Your task to perform on an android device: delete browsing data in the chrome app Image 0: 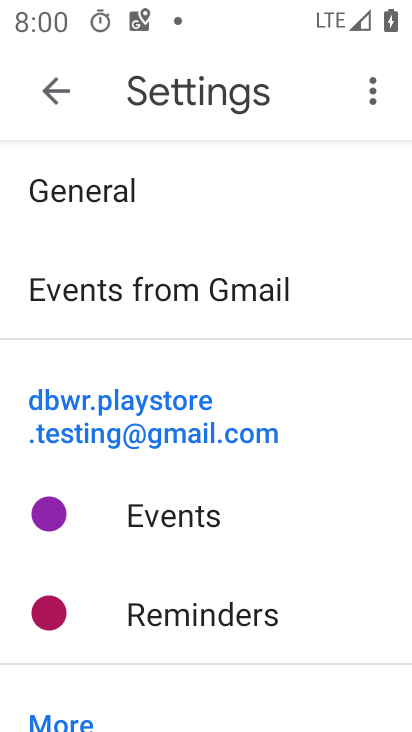
Step 0: press home button
Your task to perform on an android device: delete browsing data in the chrome app Image 1: 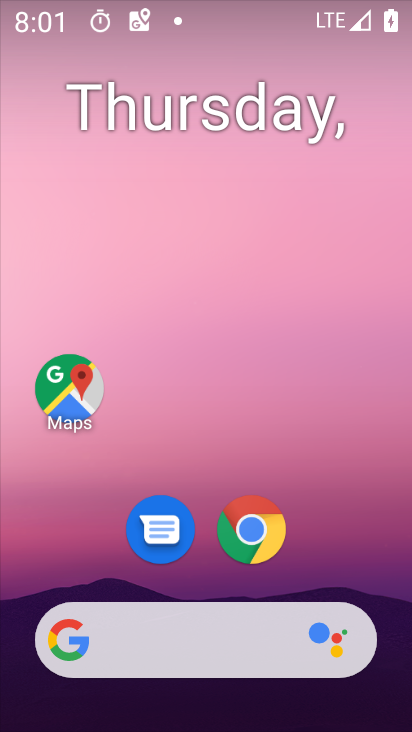
Step 1: drag from (380, 583) to (398, 198)
Your task to perform on an android device: delete browsing data in the chrome app Image 2: 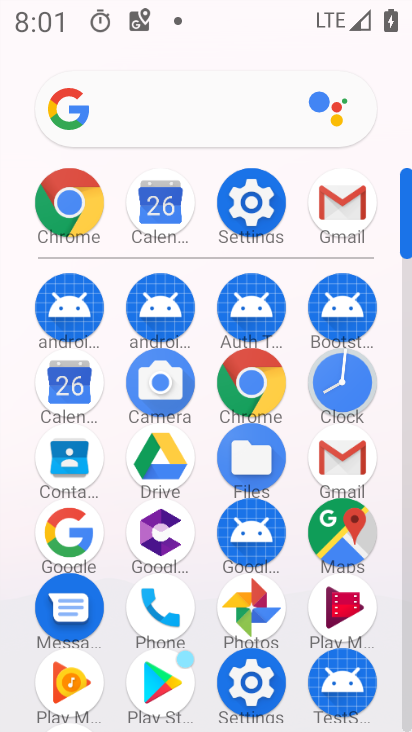
Step 2: click (268, 391)
Your task to perform on an android device: delete browsing data in the chrome app Image 3: 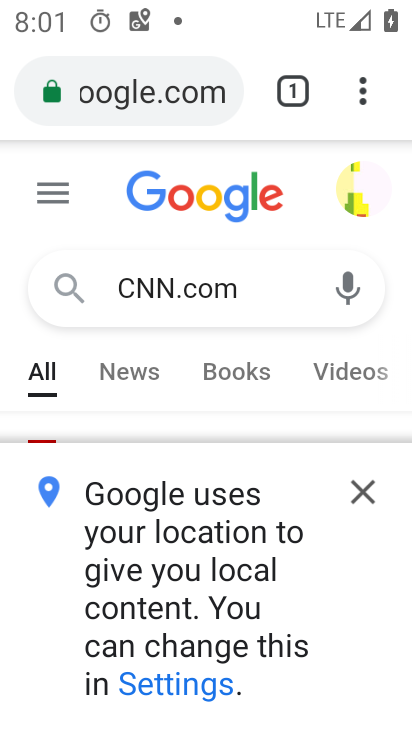
Step 3: click (362, 102)
Your task to perform on an android device: delete browsing data in the chrome app Image 4: 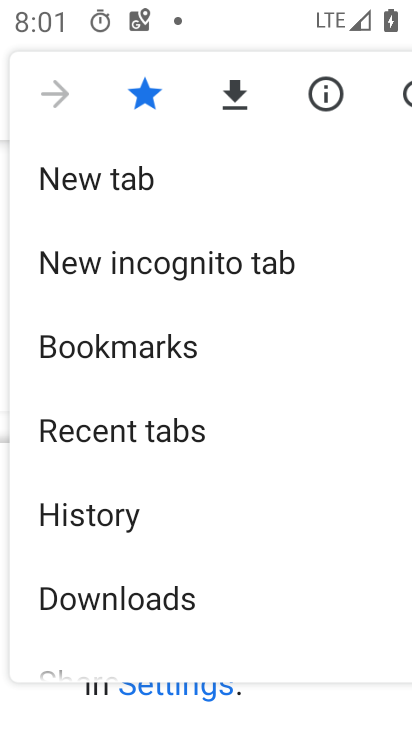
Step 4: drag from (358, 454) to (358, 358)
Your task to perform on an android device: delete browsing data in the chrome app Image 5: 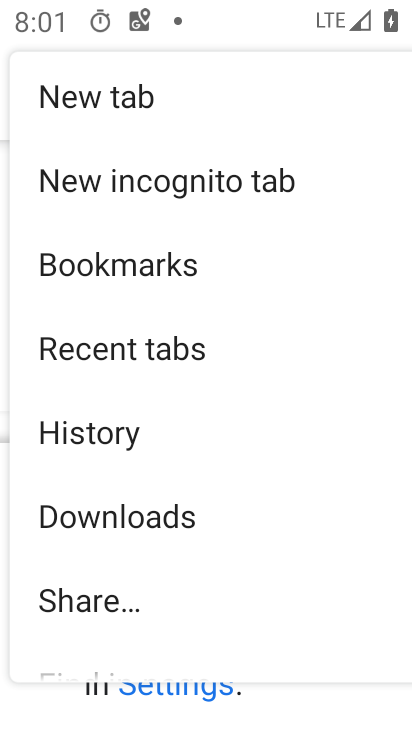
Step 5: drag from (350, 456) to (350, 333)
Your task to perform on an android device: delete browsing data in the chrome app Image 6: 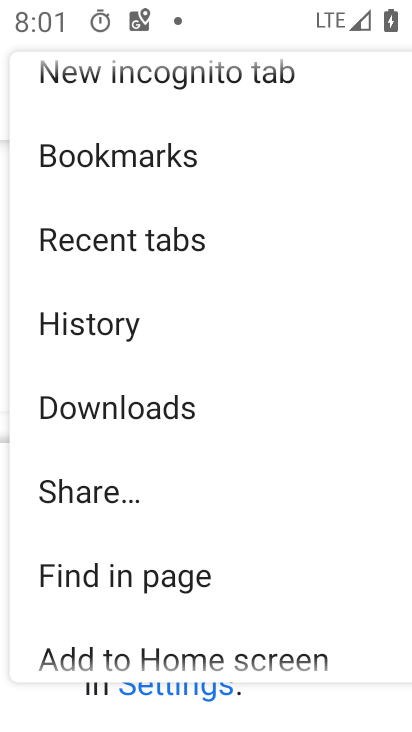
Step 6: drag from (348, 467) to (346, 328)
Your task to perform on an android device: delete browsing data in the chrome app Image 7: 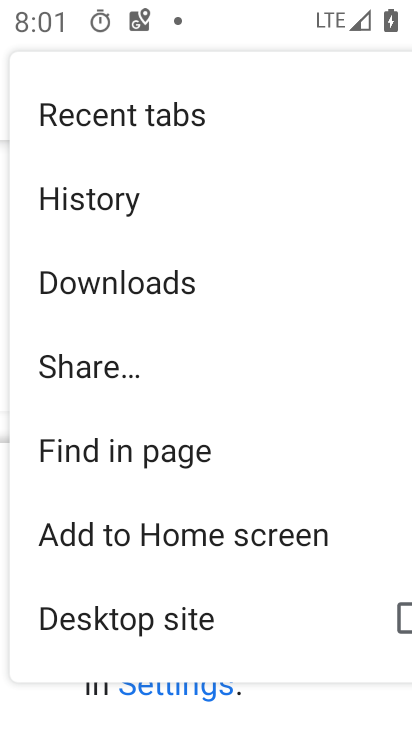
Step 7: drag from (330, 500) to (344, 354)
Your task to perform on an android device: delete browsing data in the chrome app Image 8: 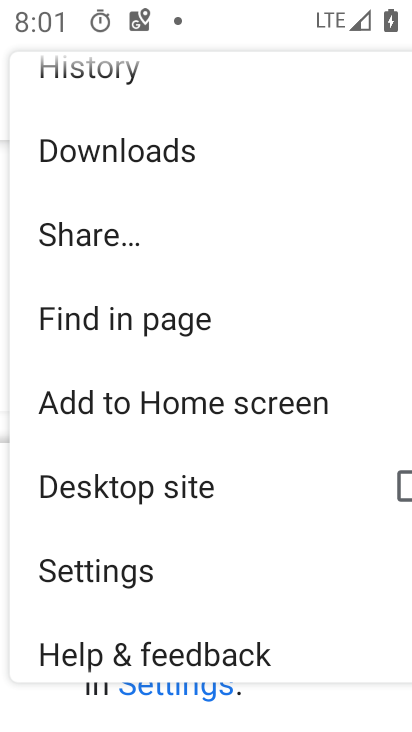
Step 8: drag from (313, 524) to (321, 299)
Your task to perform on an android device: delete browsing data in the chrome app Image 9: 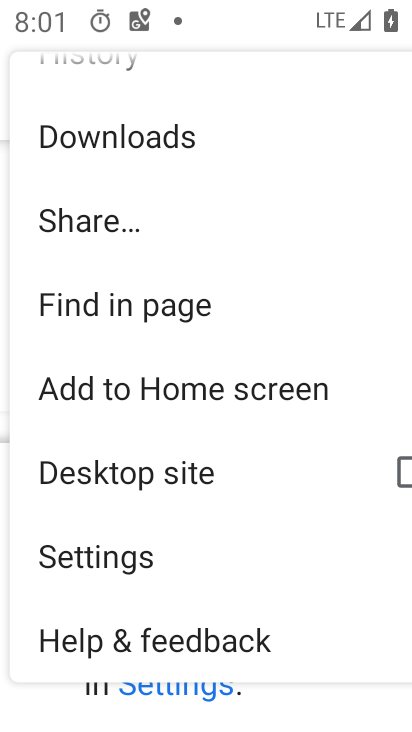
Step 9: click (186, 565)
Your task to perform on an android device: delete browsing data in the chrome app Image 10: 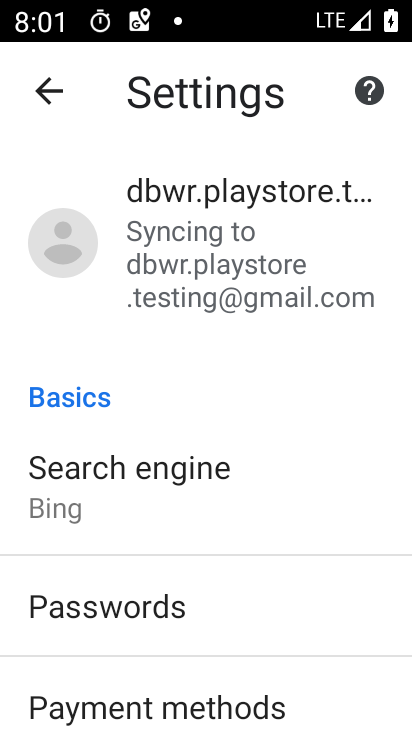
Step 10: drag from (313, 609) to (328, 481)
Your task to perform on an android device: delete browsing data in the chrome app Image 11: 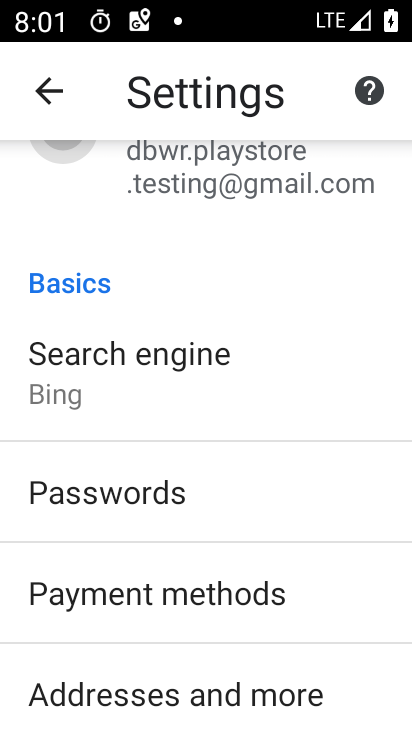
Step 11: drag from (317, 582) to (325, 463)
Your task to perform on an android device: delete browsing data in the chrome app Image 12: 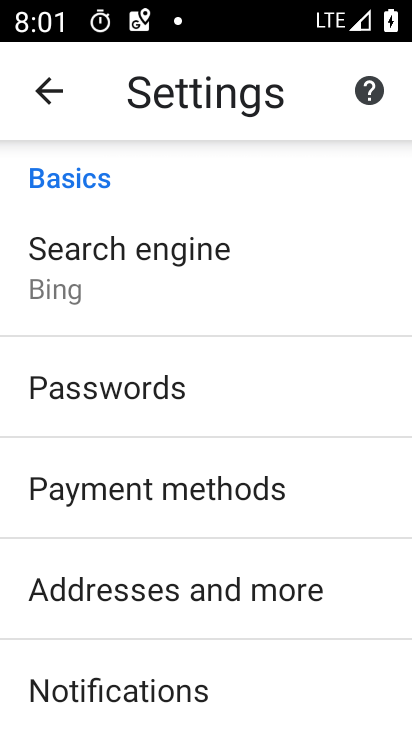
Step 12: drag from (352, 613) to (352, 488)
Your task to perform on an android device: delete browsing data in the chrome app Image 13: 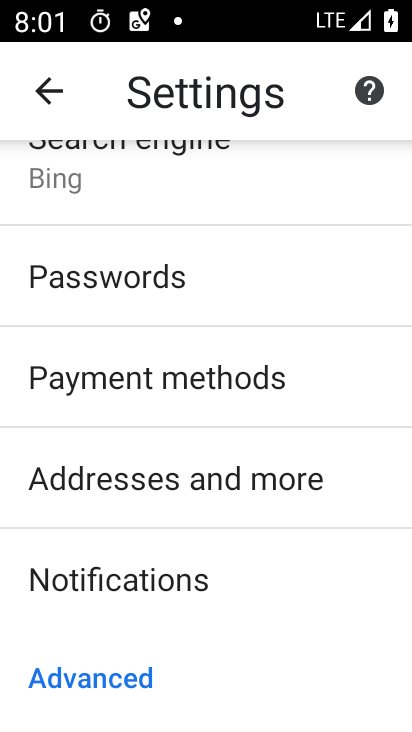
Step 13: drag from (357, 625) to (360, 470)
Your task to perform on an android device: delete browsing data in the chrome app Image 14: 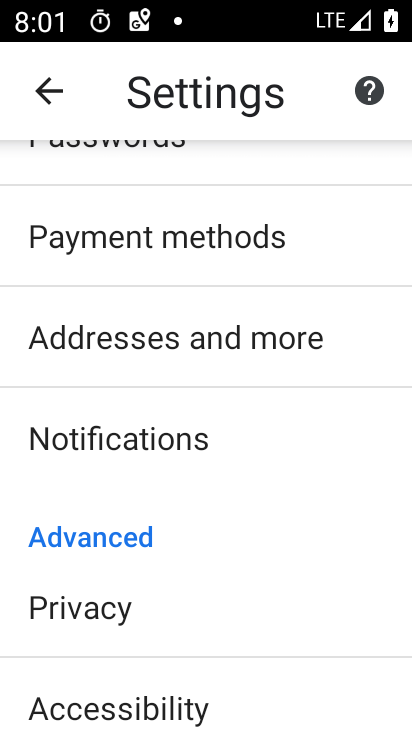
Step 14: drag from (326, 612) to (321, 513)
Your task to perform on an android device: delete browsing data in the chrome app Image 15: 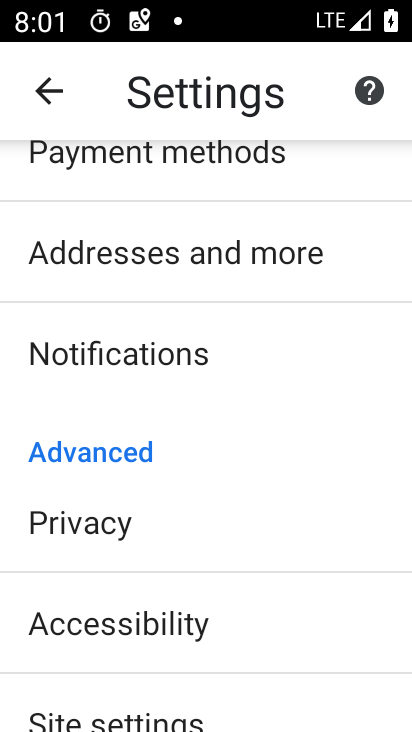
Step 15: drag from (316, 641) to (324, 528)
Your task to perform on an android device: delete browsing data in the chrome app Image 16: 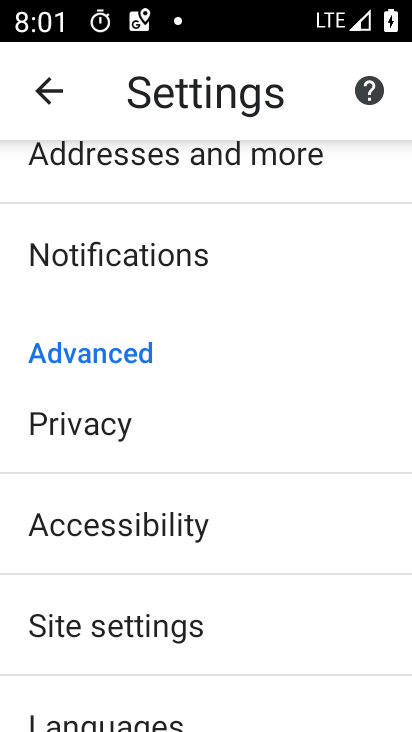
Step 16: click (184, 443)
Your task to perform on an android device: delete browsing data in the chrome app Image 17: 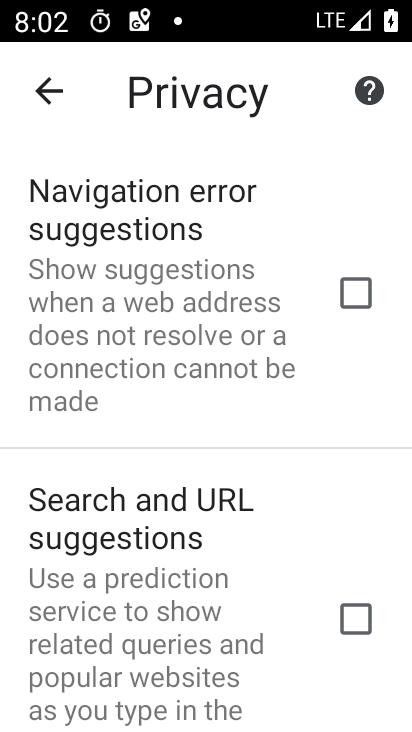
Step 17: drag from (258, 559) to (271, 425)
Your task to perform on an android device: delete browsing data in the chrome app Image 18: 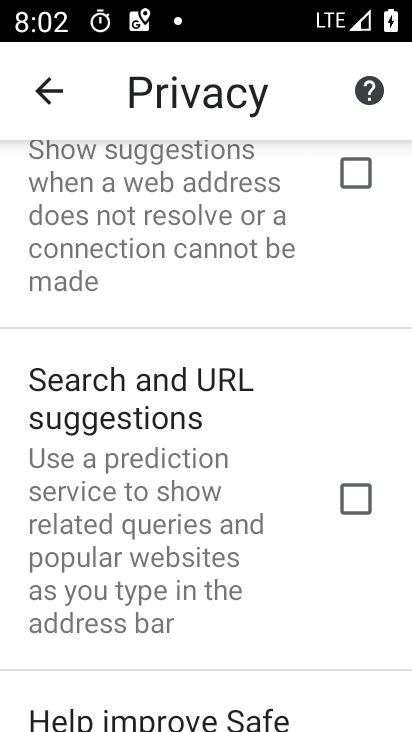
Step 18: drag from (281, 579) to (299, 430)
Your task to perform on an android device: delete browsing data in the chrome app Image 19: 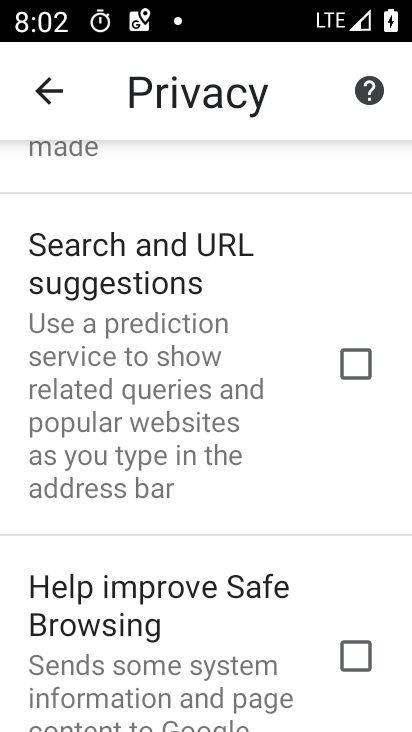
Step 19: drag from (307, 596) to (304, 442)
Your task to perform on an android device: delete browsing data in the chrome app Image 20: 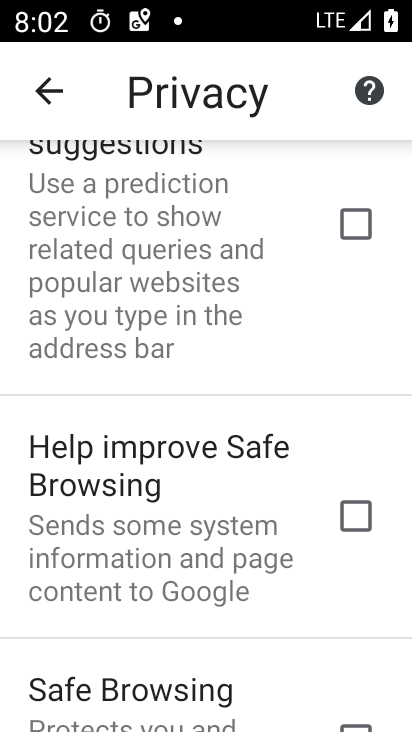
Step 20: drag from (303, 592) to (308, 452)
Your task to perform on an android device: delete browsing data in the chrome app Image 21: 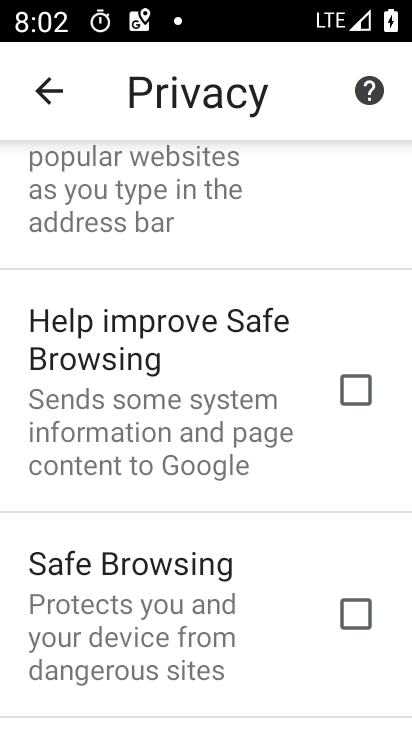
Step 21: drag from (320, 539) to (311, 404)
Your task to perform on an android device: delete browsing data in the chrome app Image 22: 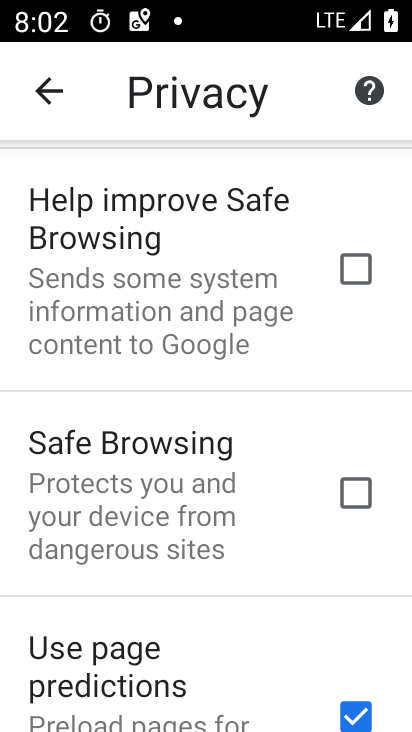
Step 22: drag from (312, 614) to (309, 471)
Your task to perform on an android device: delete browsing data in the chrome app Image 23: 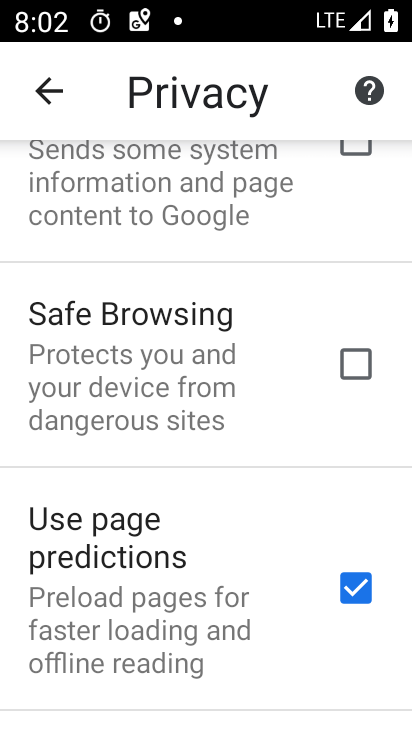
Step 23: drag from (300, 594) to (297, 451)
Your task to perform on an android device: delete browsing data in the chrome app Image 24: 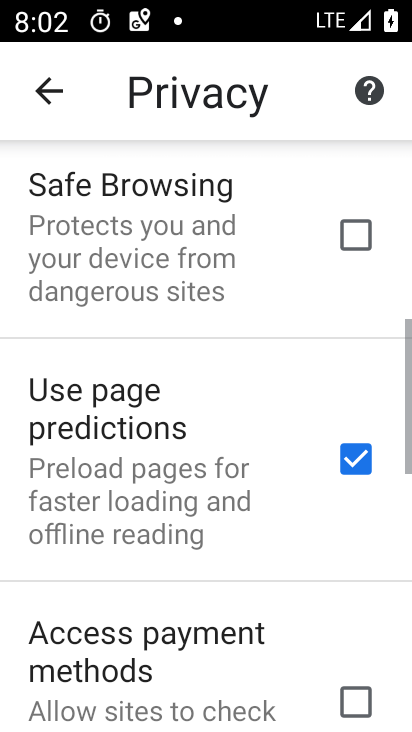
Step 24: drag from (274, 657) to (279, 495)
Your task to perform on an android device: delete browsing data in the chrome app Image 25: 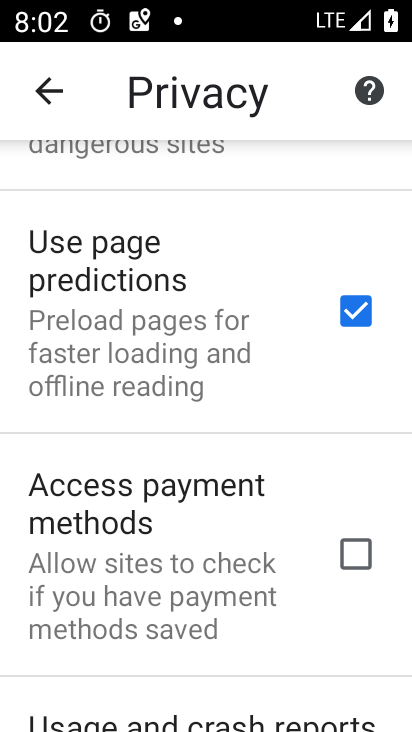
Step 25: drag from (285, 561) to (295, 379)
Your task to perform on an android device: delete browsing data in the chrome app Image 26: 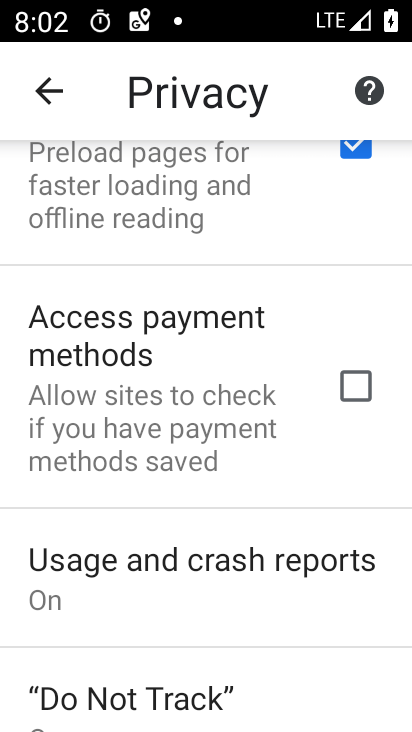
Step 26: drag from (278, 592) to (283, 419)
Your task to perform on an android device: delete browsing data in the chrome app Image 27: 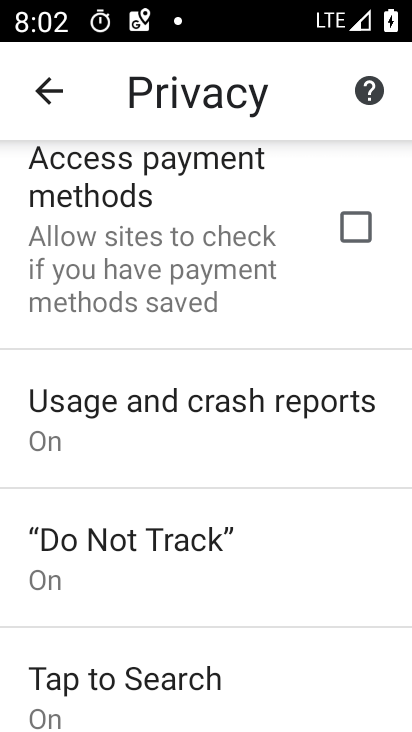
Step 27: drag from (300, 607) to (307, 429)
Your task to perform on an android device: delete browsing data in the chrome app Image 28: 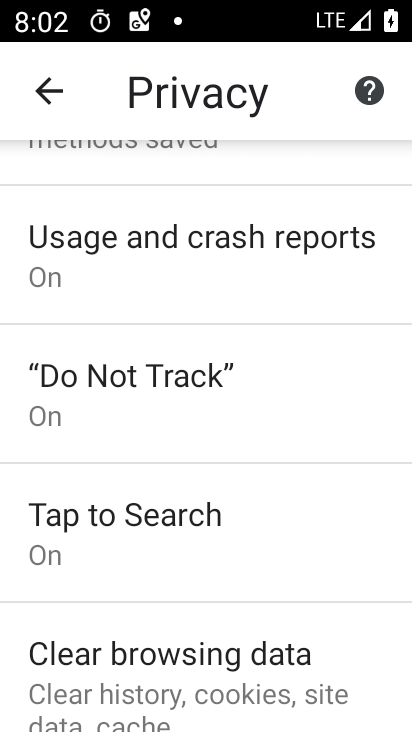
Step 28: click (304, 663)
Your task to perform on an android device: delete browsing data in the chrome app Image 29: 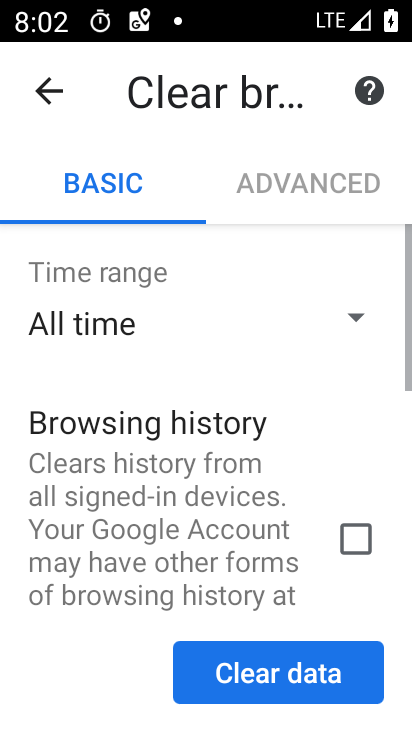
Step 29: click (305, 677)
Your task to perform on an android device: delete browsing data in the chrome app Image 30: 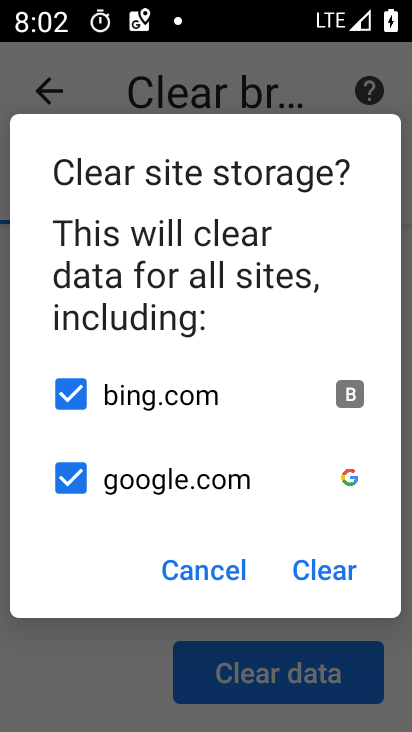
Step 30: click (330, 569)
Your task to perform on an android device: delete browsing data in the chrome app Image 31: 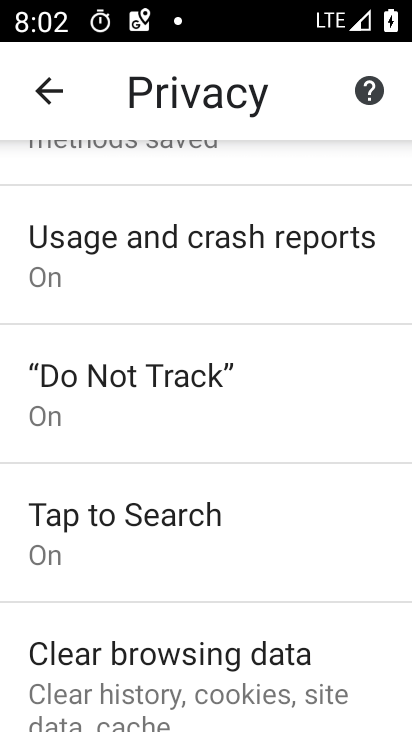
Step 31: task complete